Your task to perform on an android device: Open the map Image 0: 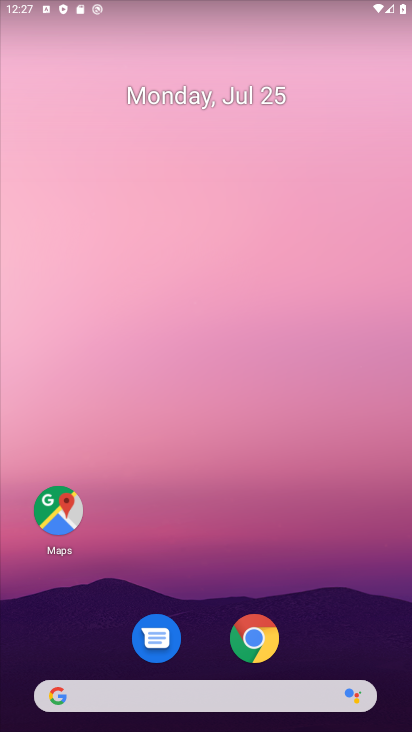
Step 0: click (67, 507)
Your task to perform on an android device: Open the map Image 1: 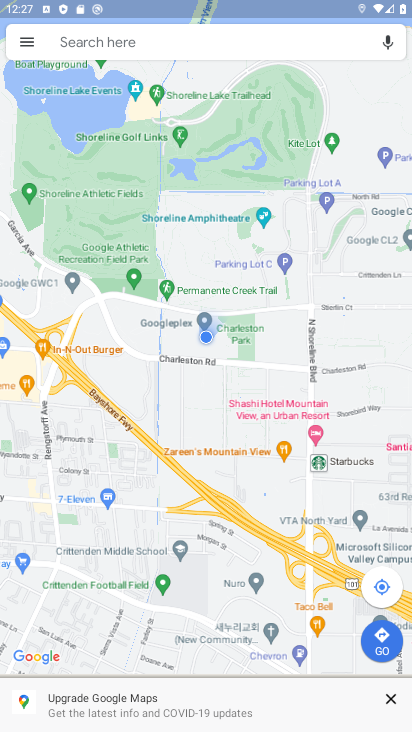
Step 1: task complete